Your task to perform on an android device: Go to accessibility settings Image 0: 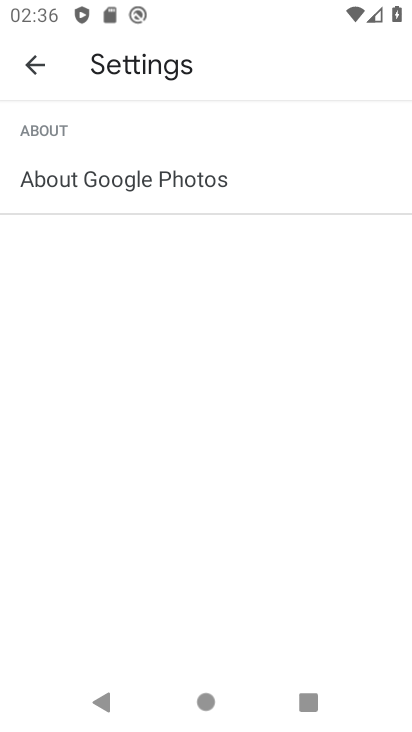
Step 0: press home button
Your task to perform on an android device: Go to accessibility settings Image 1: 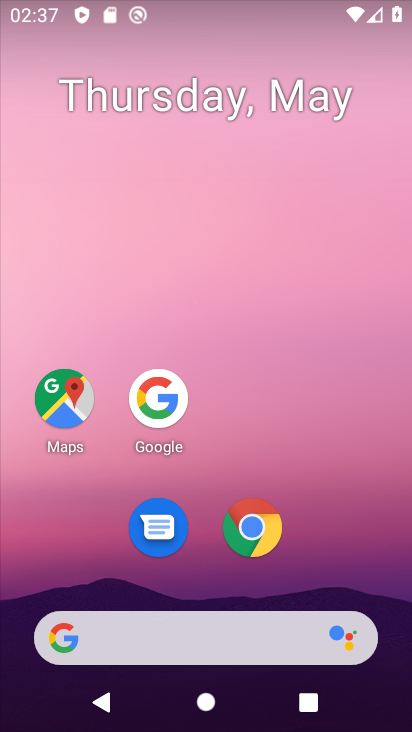
Step 1: drag from (194, 595) to (207, 472)
Your task to perform on an android device: Go to accessibility settings Image 2: 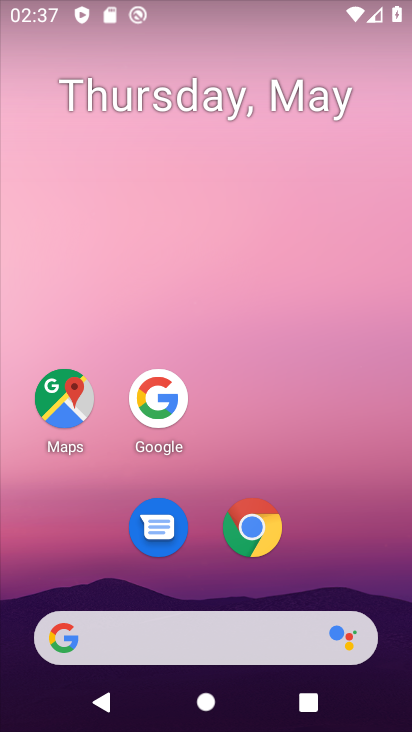
Step 2: drag from (213, 584) to (208, 270)
Your task to perform on an android device: Go to accessibility settings Image 3: 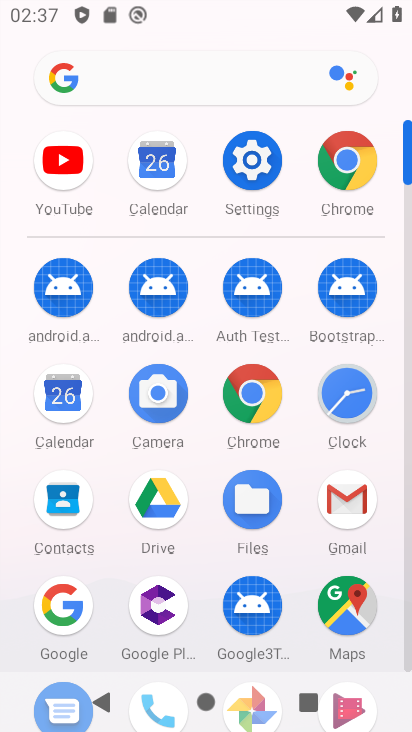
Step 3: click (252, 169)
Your task to perform on an android device: Go to accessibility settings Image 4: 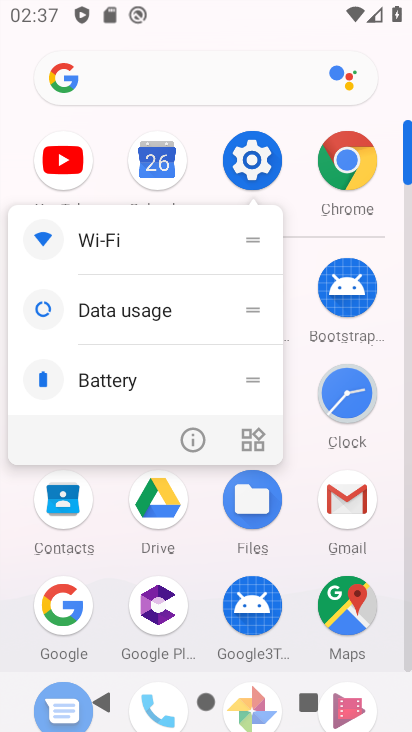
Step 4: click (196, 435)
Your task to perform on an android device: Go to accessibility settings Image 5: 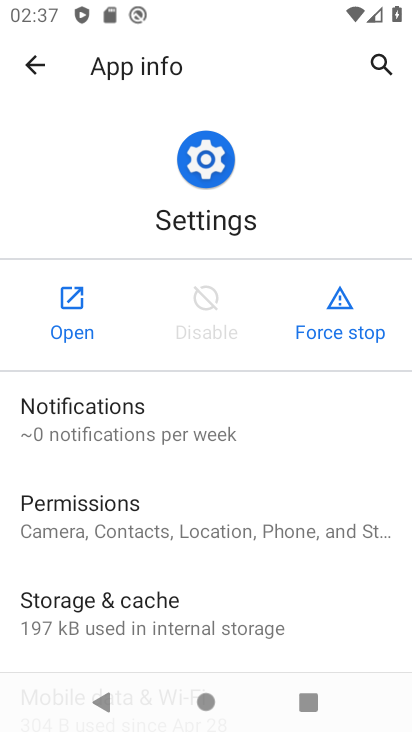
Step 5: click (68, 312)
Your task to perform on an android device: Go to accessibility settings Image 6: 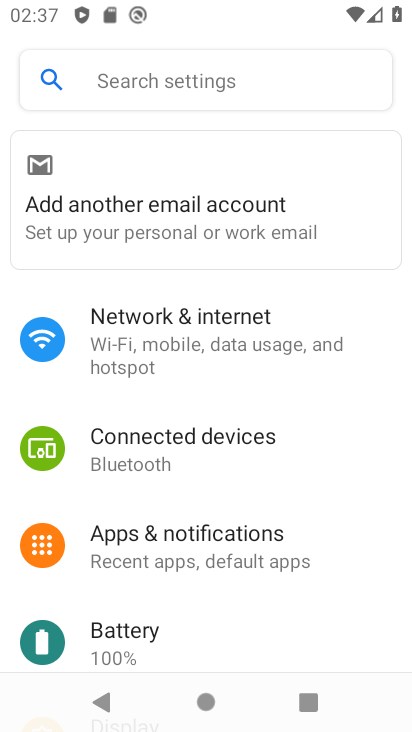
Step 6: drag from (194, 590) to (200, 322)
Your task to perform on an android device: Go to accessibility settings Image 7: 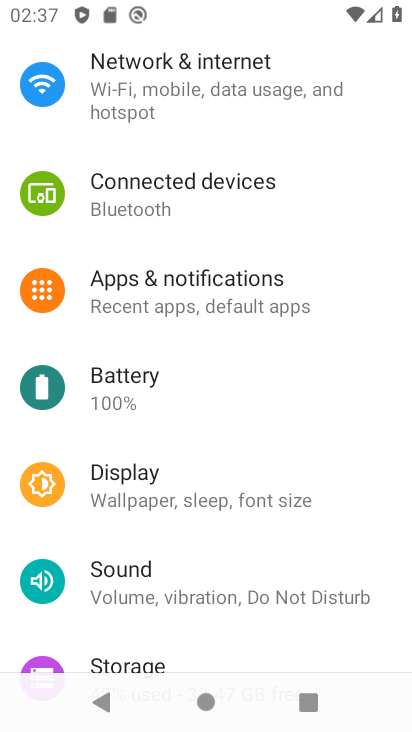
Step 7: drag from (205, 151) to (296, 89)
Your task to perform on an android device: Go to accessibility settings Image 8: 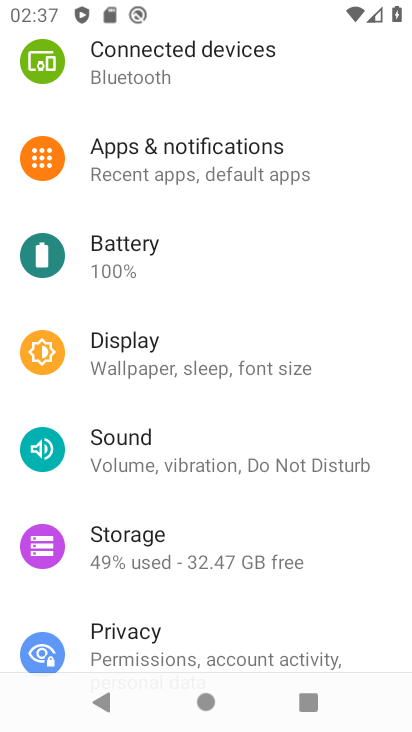
Step 8: drag from (223, 576) to (272, 100)
Your task to perform on an android device: Go to accessibility settings Image 9: 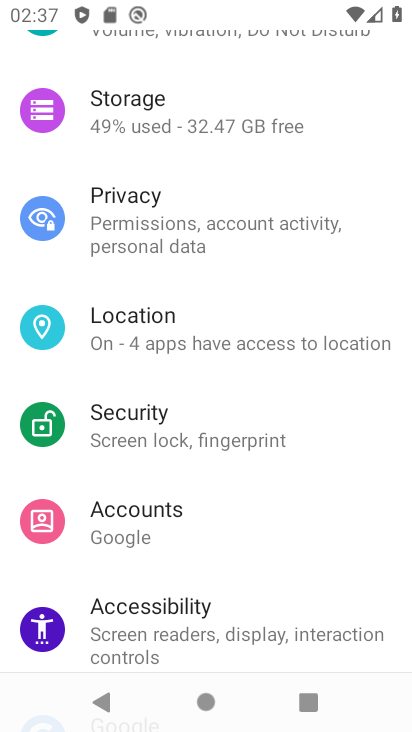
Step 9: click (186, 597)
Your task to perform on an android device: Go to accessibility settings Image 10: 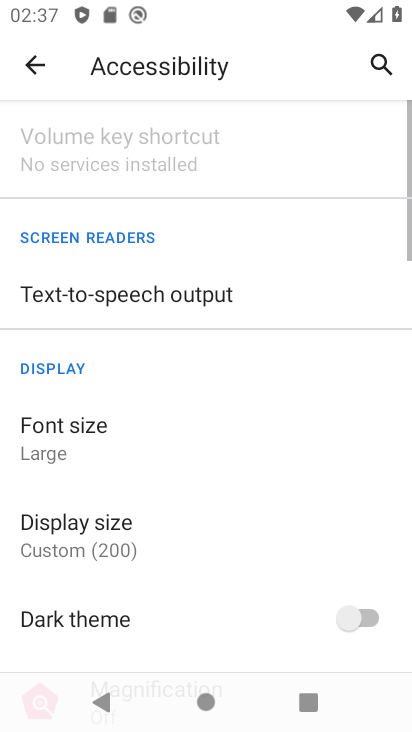
Step 10: task complete